Your task to perform on an android device: clear history in the chrome app Image 0: 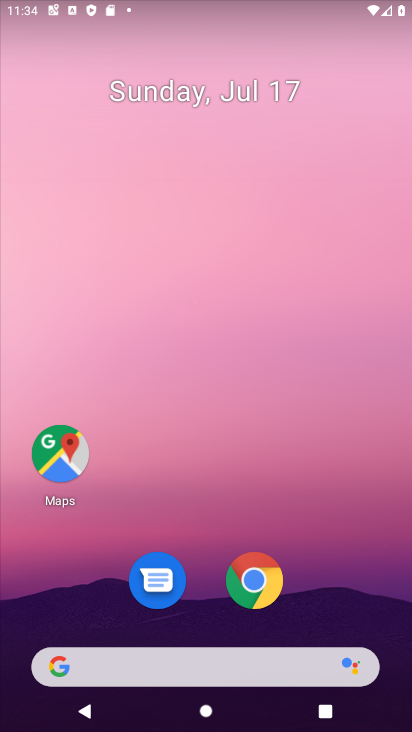
Step 0: drag from (271, 626) to (286, 256)
Your task to perform on an android device: clear history in the chrome app Image 1: 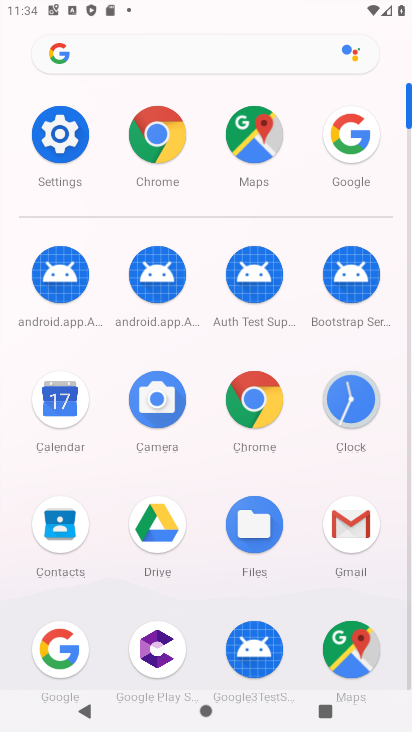
Step 1: click (274, 425)
Your task to perform on an android device: clear history in the chrome app Image 2: 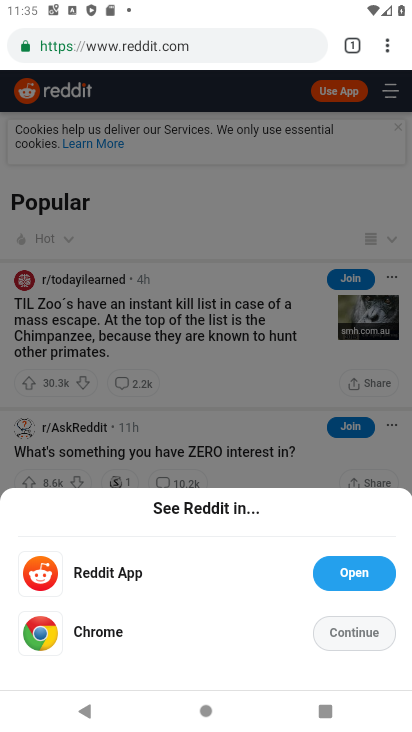
Step 2: click (391, 47)
Your task to perform on an android device: clear history in the chrome app Image 3: 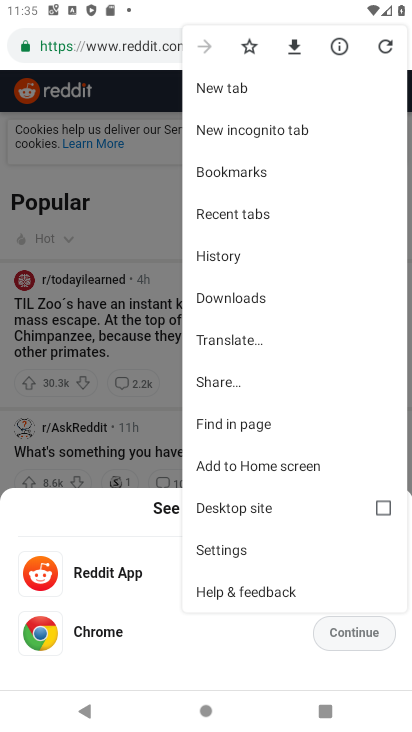
Step 3: click (231, 251)
Your task to perform on an android device: clear history in the chrome app Image 4: 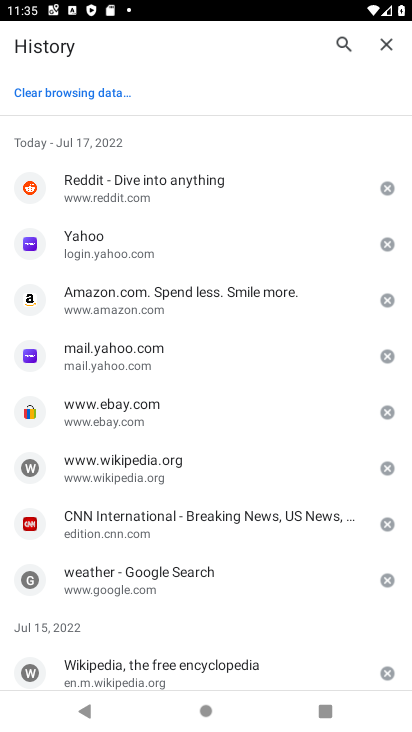
Step 4: click (76, 94)
Your task to perform on an android device: clear history in the chrome app Image 5: 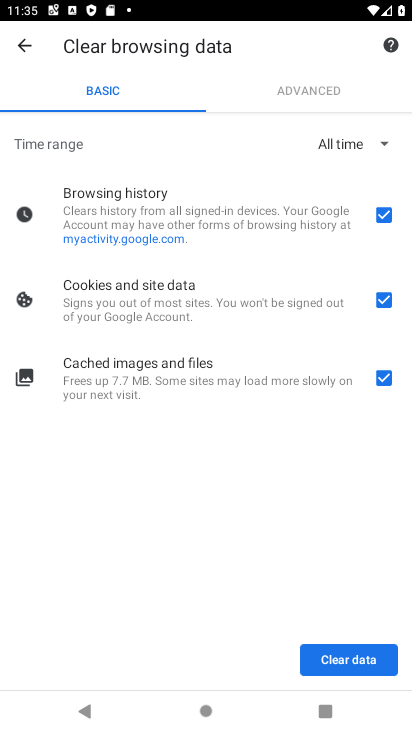
Step 5: click (370, 666)
Your task to perform on an android device: clear history in the chrome app Image 6: 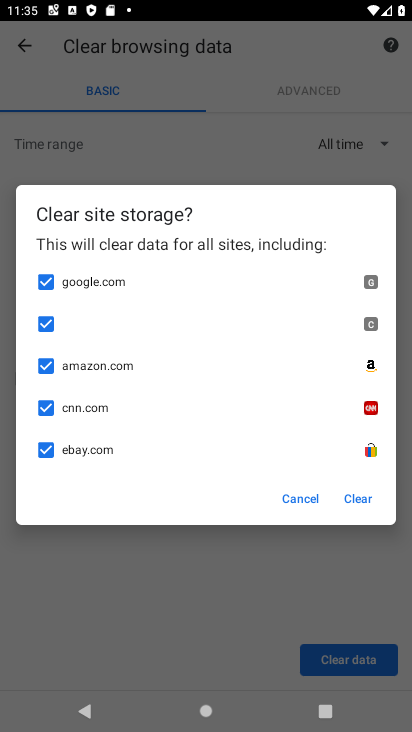
Step 6: click (367, 499)
Your task to perform on an android device: clear history in the chrome app Image 7: 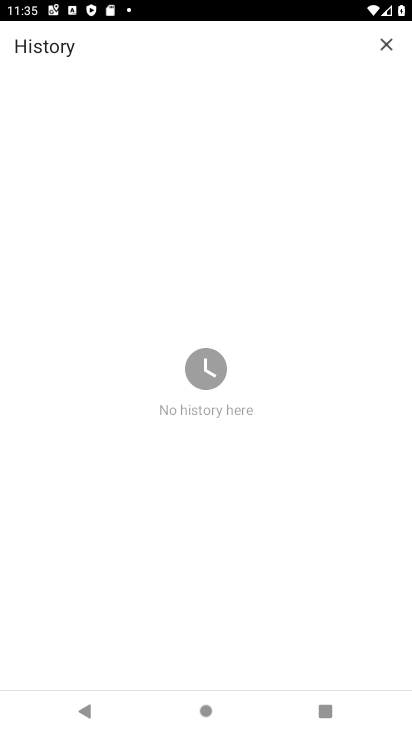
Step 7: task complete